Your task to perform on an android device: clear history in the chrome app Image 0: 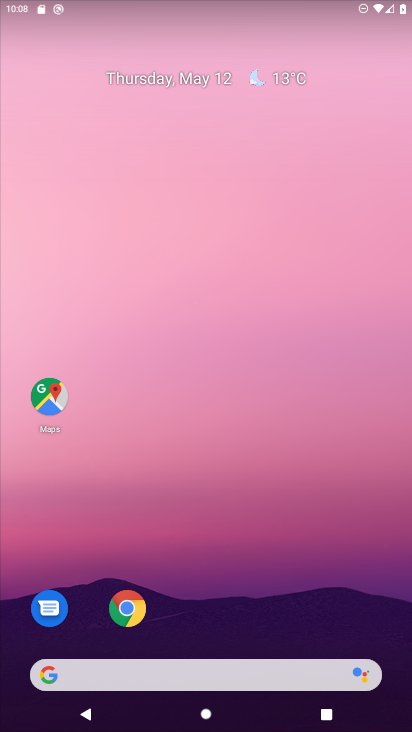
Step 0: click (130, 609)
Your task to perform on an android device: clear history in the chrome app Image 1: 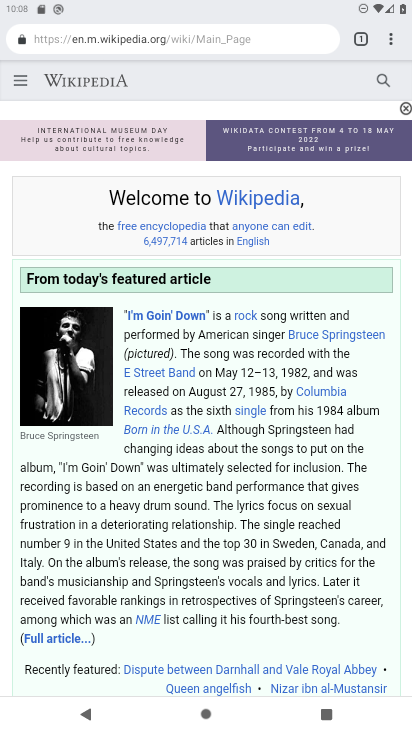
Step 1: click (384, 34)
Your task to perform on an android device: clear history in the chrome app Image 2: 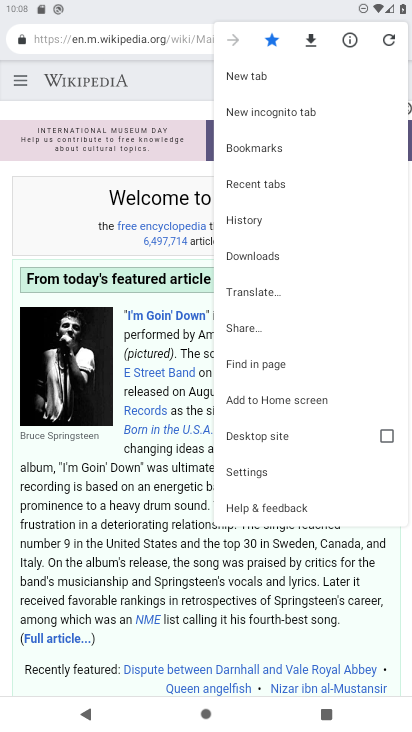
Step 2: click (274, 471)
Your task to perform on an android device: clear history in the chrome app Image 3: 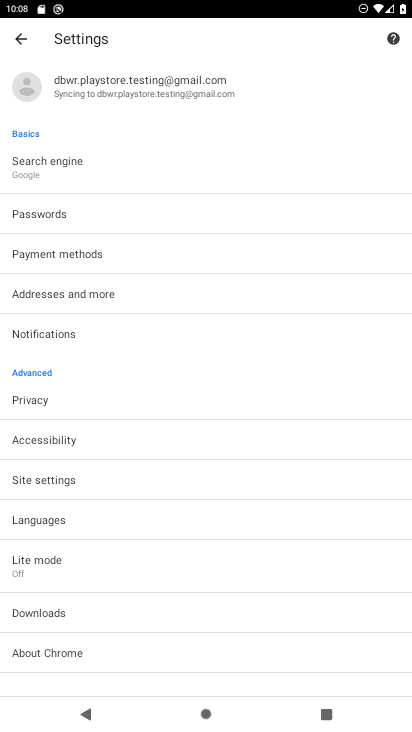
Step 3: drag from (190, 546) to (152, 173)
Your task to perform on an android device: clear history in the chrome app Image 4: 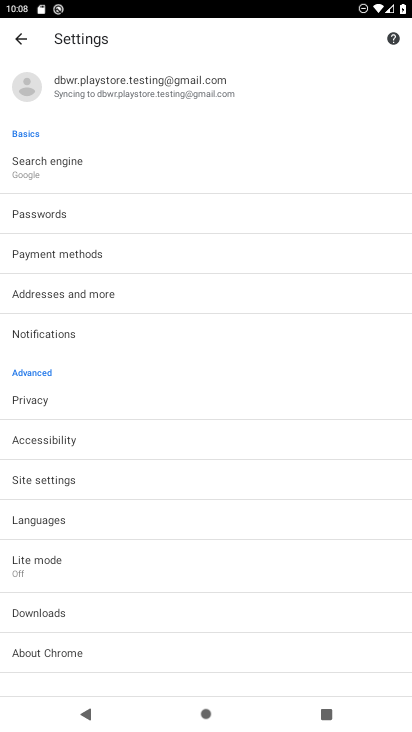
Step 4: click (49, 407)
Your task to perform on an android device: clear history in the chrome app Image 5: 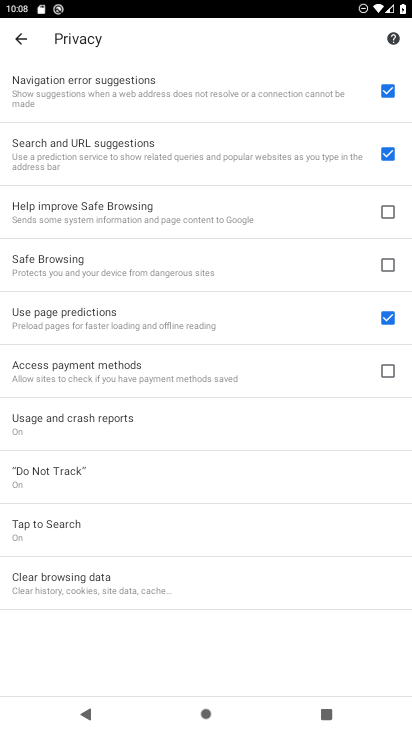
Step 5: click (112, 583)
Your task to perform on an android device: clear history in the chrome app Image 6: 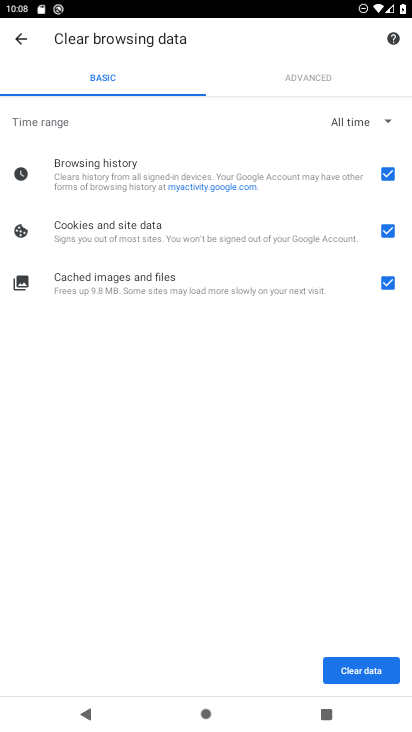
Step 6: click (391, 225)
Your task to perform on an android device: clear history in the chrome app Image 7: 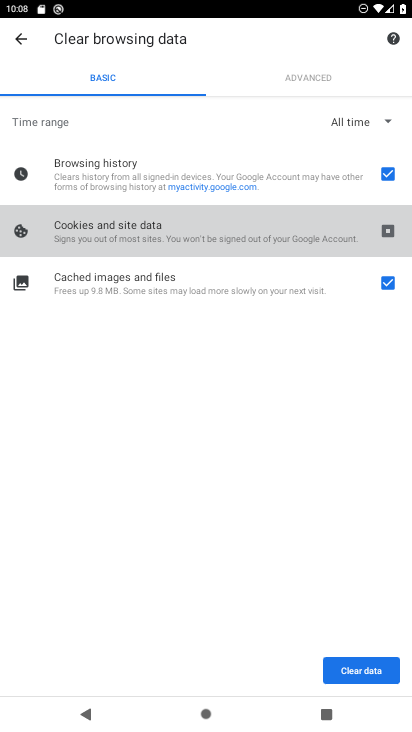
Step 7: click (389, 289)
Your task to perform on an android device: clear history in the chrome app Image 8: 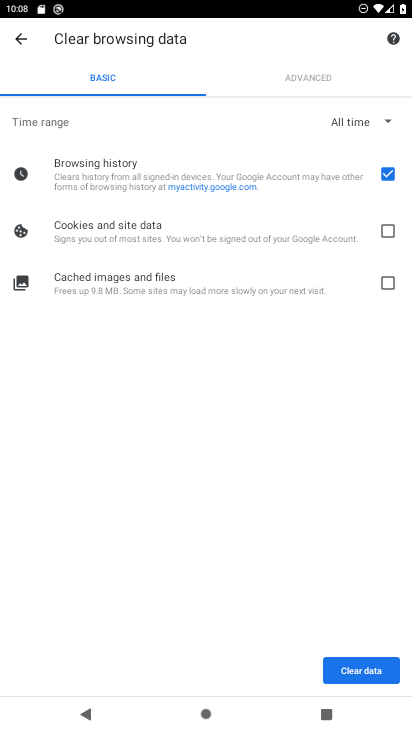
Step 8: click (355, 667)
Your task to perform on an android device: clear history in the chrome app Image 9: 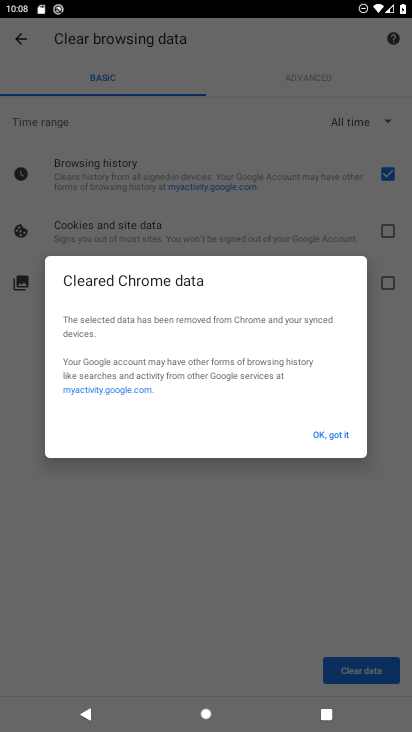
Step 9: click (318, 423)
Your task to perform on an android device: clear history in the chrome app Image 10: 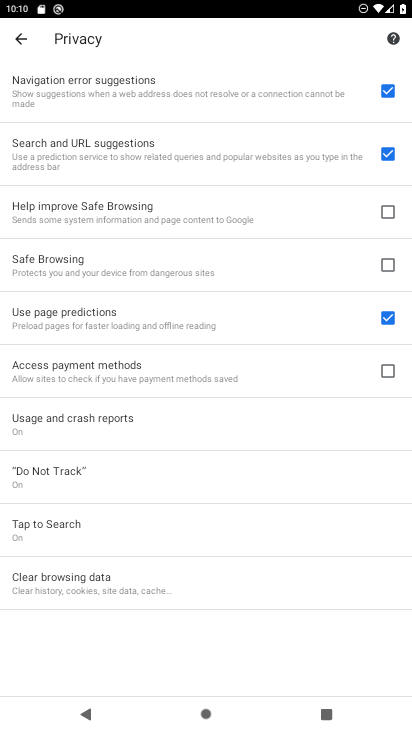
Step 10: task complete